Your task to perform on an android device: Search for Italian restaurants on Maps Image 0: 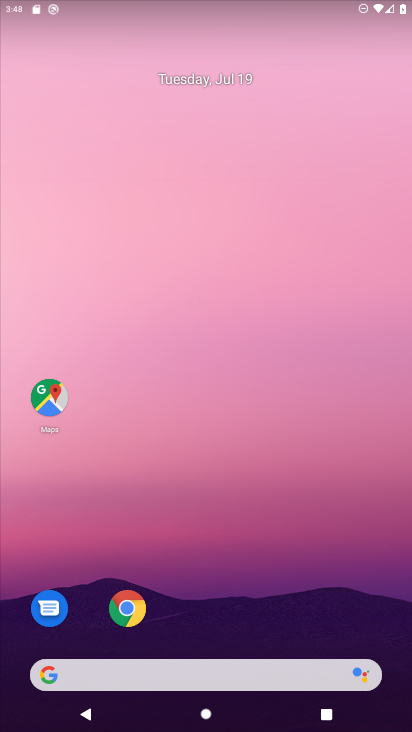
Step 0: drag from (353, 584) to (245, 34)
Your task to perform on an android device: Search for Italian restaurants on Maps Image 1: 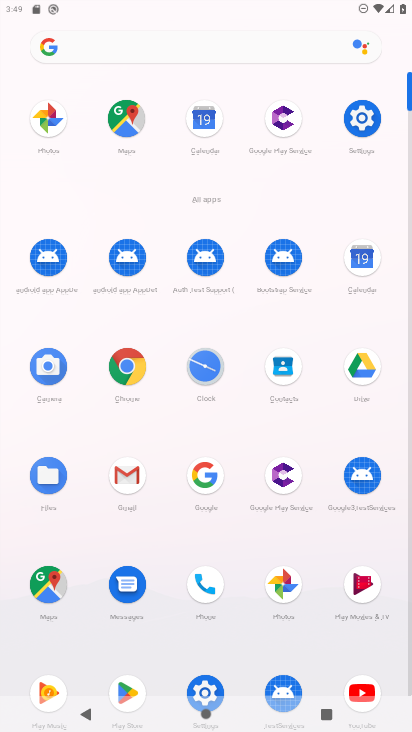
Step 1: click (128, 121)
Your task to perform on an android device: Search for Italian restaurants on Maps Image 2: 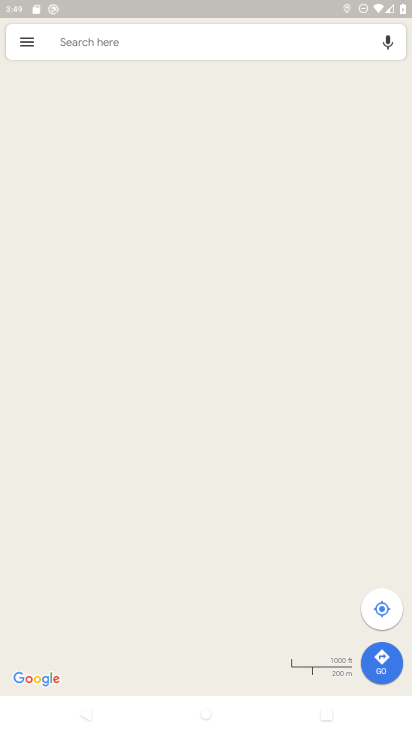
Step 2: click (202, 43)
Your task to perform on an android device: Search for Italian restaurants on Maps Image 3: 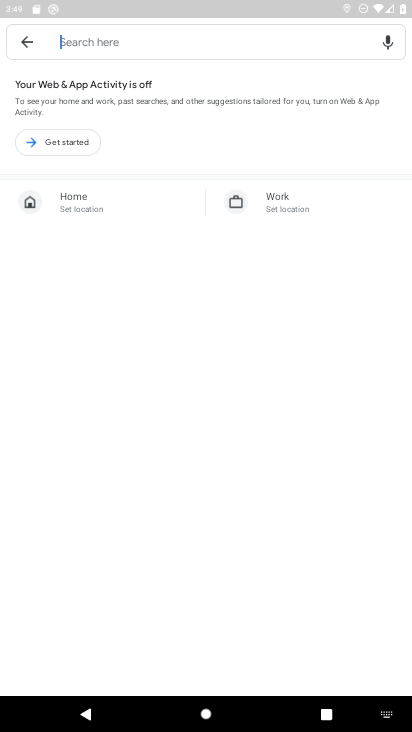
Step 3: type "Italian restaurants"
Your task to perform on an android device: Search for Italian restaurants on Maps Image 4: 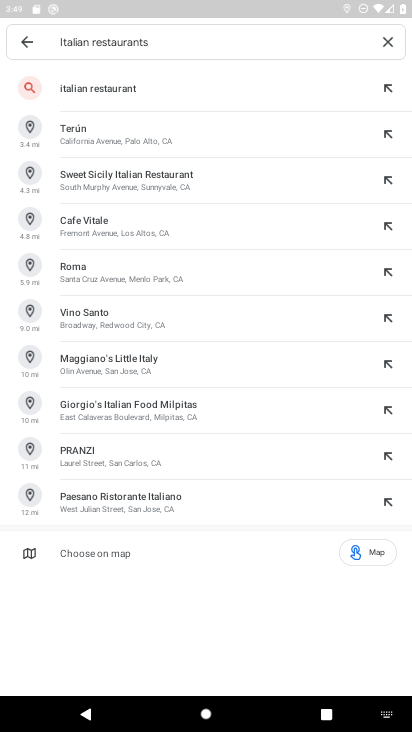
Step 4: press enter
Your task to perform on an android device: Search for Italian restaurants on Maps Image 5: 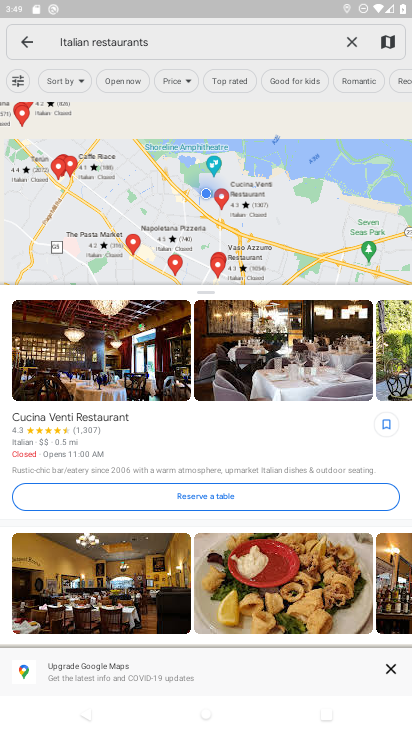
Step 5: task complete